Your task to perform on an android device: clear history in the chrome app Image 0: 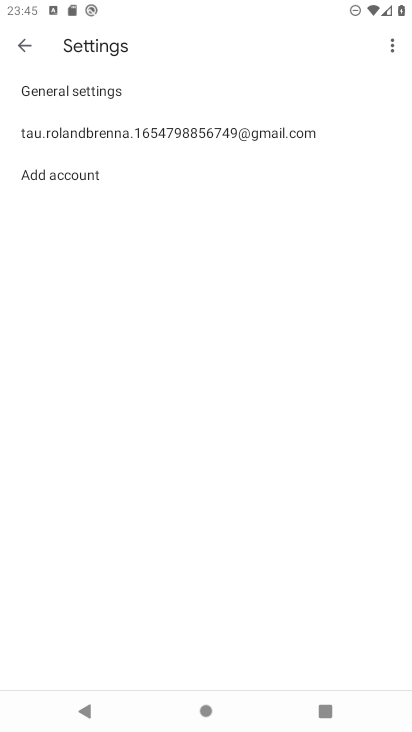
Step 0: press home button
Your task to perform on an android device: clear history in the chrome app Image 1: 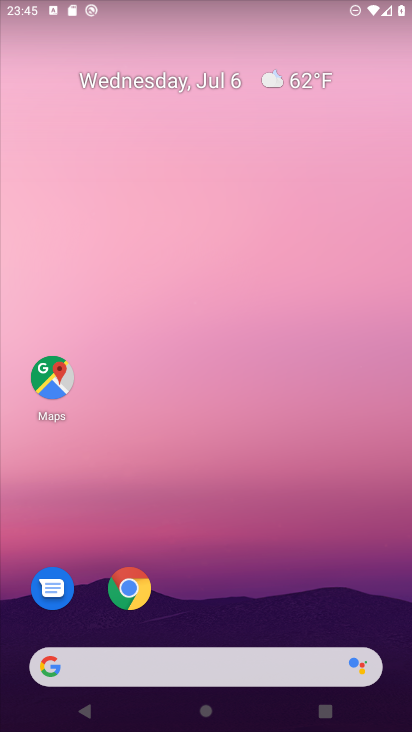
Step 1: click (128, 588)
Your task to perform on an android device: clear history in the chrome app Image 2: 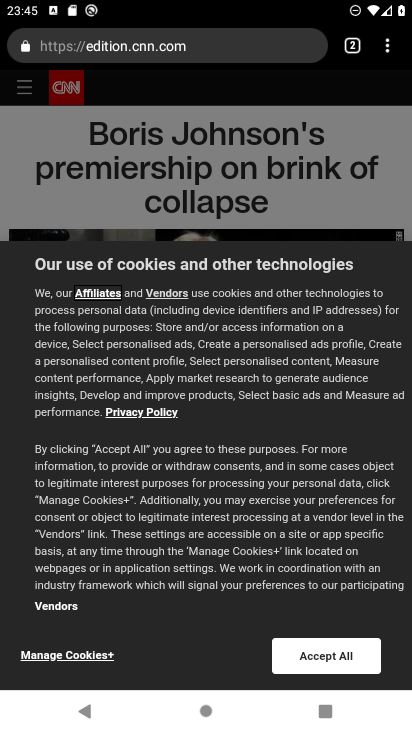
Step 2: click (388, 52)
Your task to perform on an android device: clear history in the chrome app Image 3: 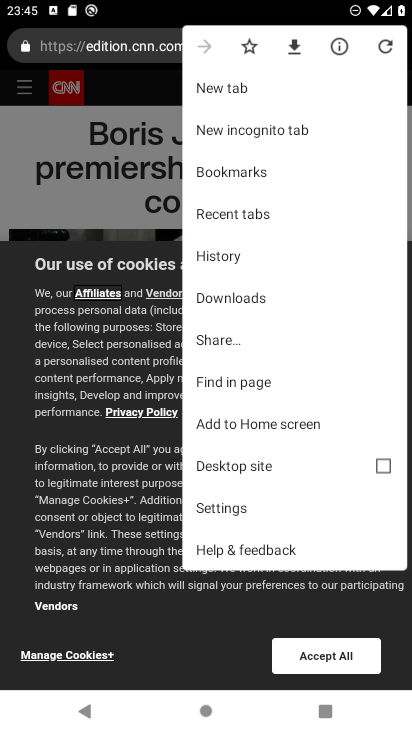
Step 3: click (215, 255)
Your task to perform on an android device: clear history in the chrome app Image 4: 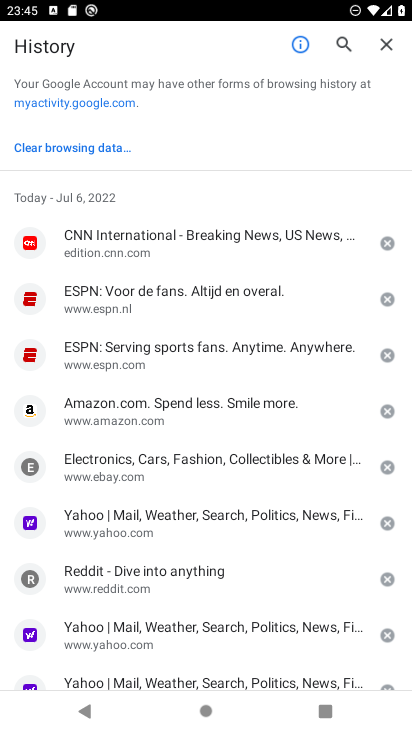
Step 4: click (52, 148)
Your task to perform on an android device: clear history in the chrome app Image 5: 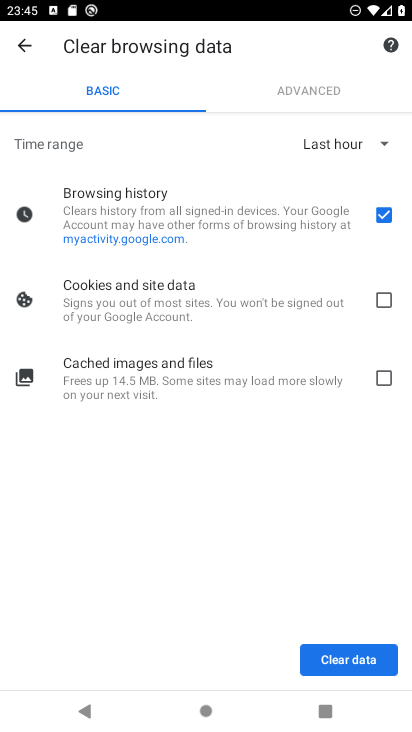
Step 5: click (345, 659)
Your task to perform on an android device: clear history in the chrome app Image 6: 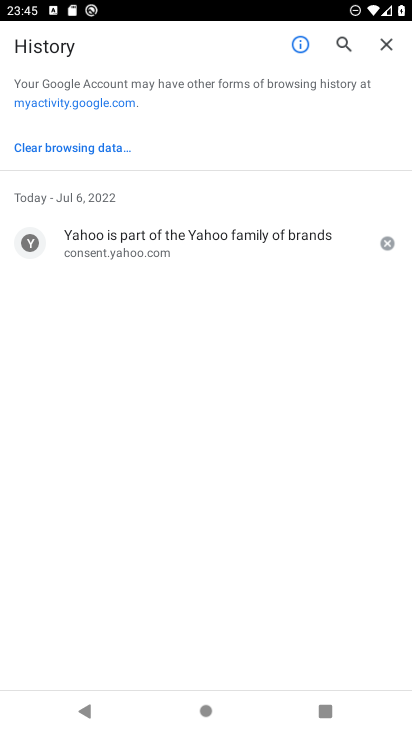
Step 6: task complete